Your task to perform on an android device: open app "LinkedIn" Image 0: 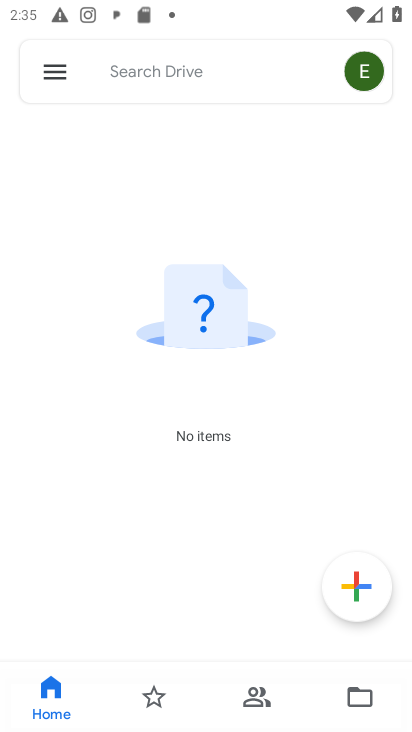
Step 0: press home button
Your task to perform on an android device: open app "LinkedIn" Image 1: 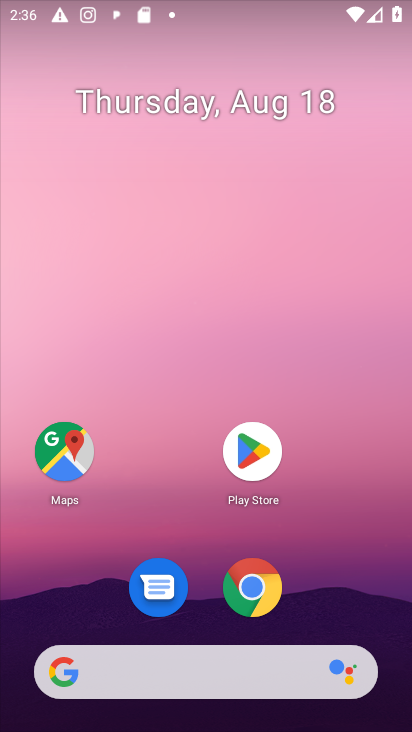
Step 1: click (255, 442)
Your task to perform on an android device: open app "LinkedIn" Image 2: 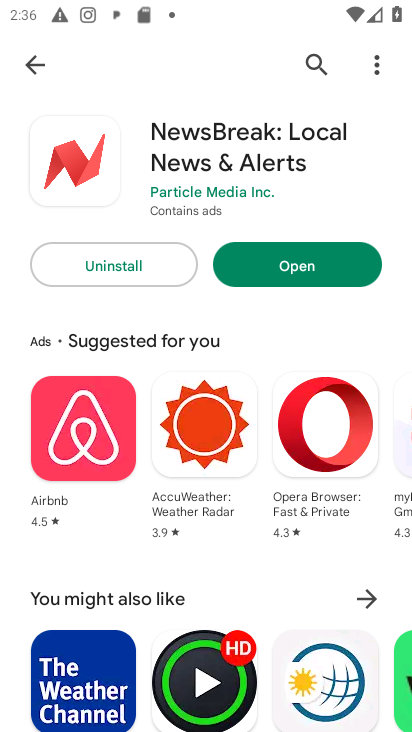
Step 2: click (313, 53)
Your task to perform on an android device: open app "LinkedIn" Image 3: 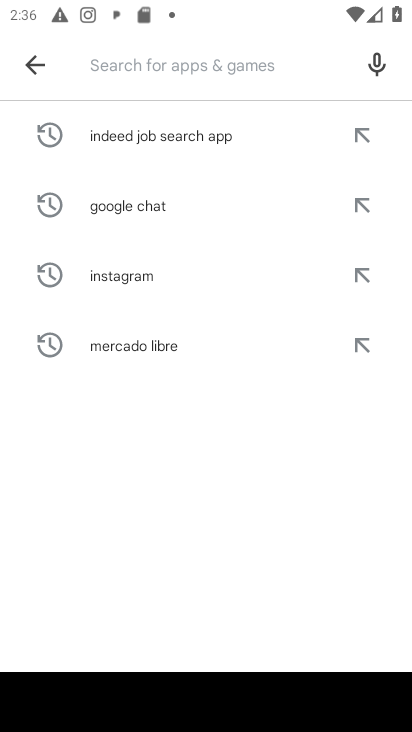
Step 3: type "LinkedIn"
Your task to perform on an android device: open app "LinkedIn" Image 4: 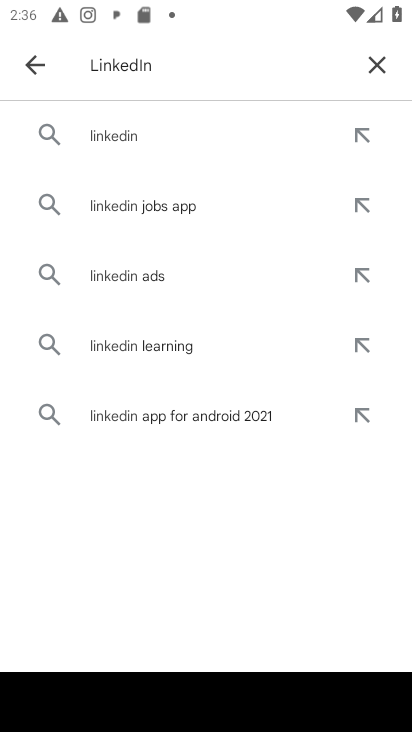
Step 4: click (126, 133)
Your task to perform on an android device: open app "LinkedIn" Image 5: 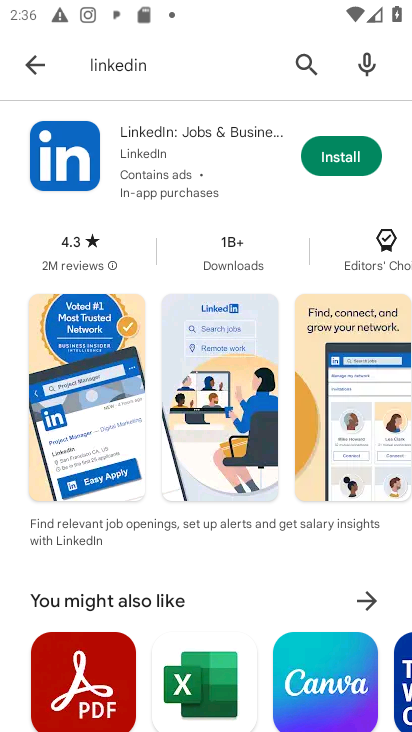
Step 5: task complete